Your task to perform on an android device: Go to Google maps Image 0: 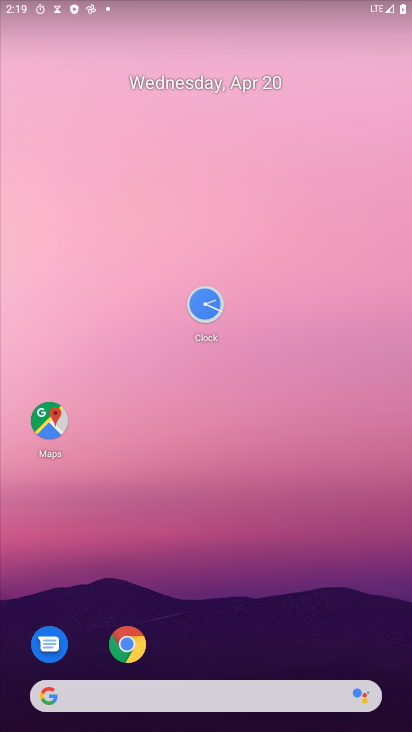
Step 0: drag from (235, 697) to (253, 41)
Your task to perform on an android device: Go to Google maps Image 1: 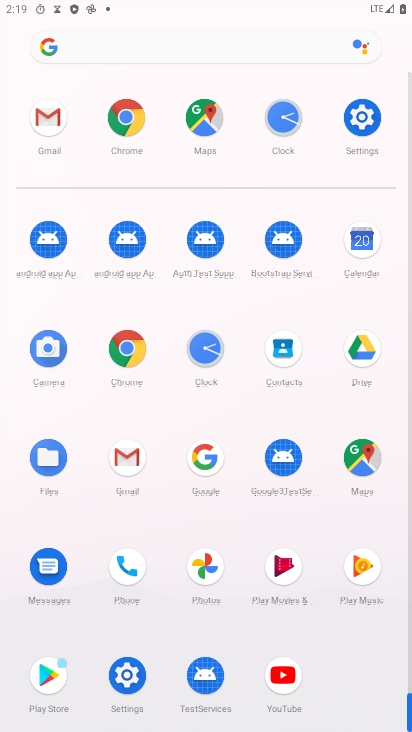
Step 1: click (371, 455)
Your task to perform on an android device: Go to Google maps Image 2: 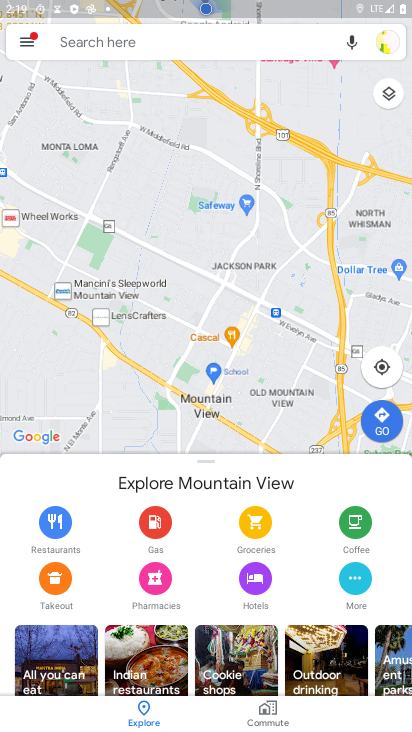
Step 2: press back button
Your task to perform on an android device: Go to Google maps Image 3: 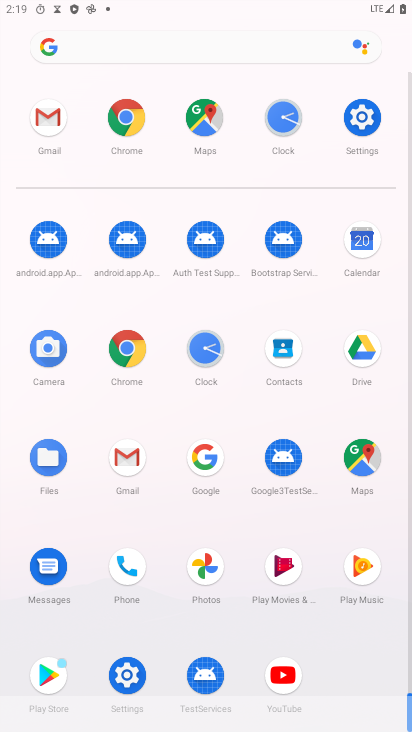
Step 3: click (370, 468)
Your task to perform on an android device: Go to Google maps Image 4: 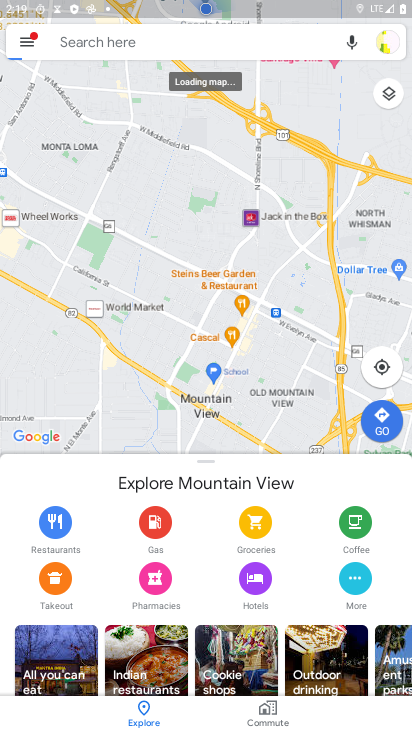
Step 4: task complete